Your task to perform on an android device: turn on priority inbox in the gmail app Image 0: 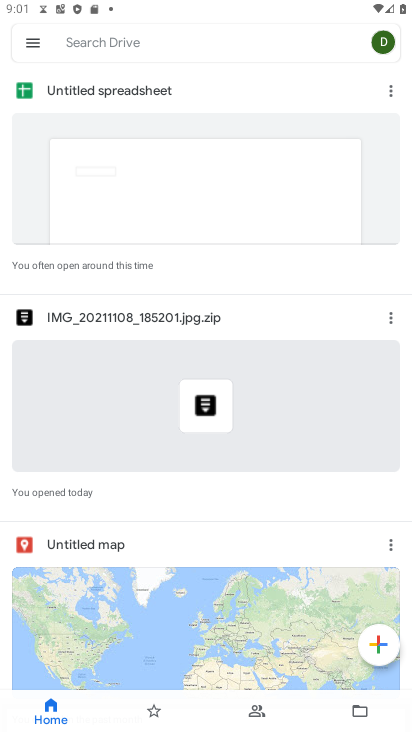
Step 0: press back button
Your task to perform on an android device: turn on priority inbox in the gmail app Image 1: 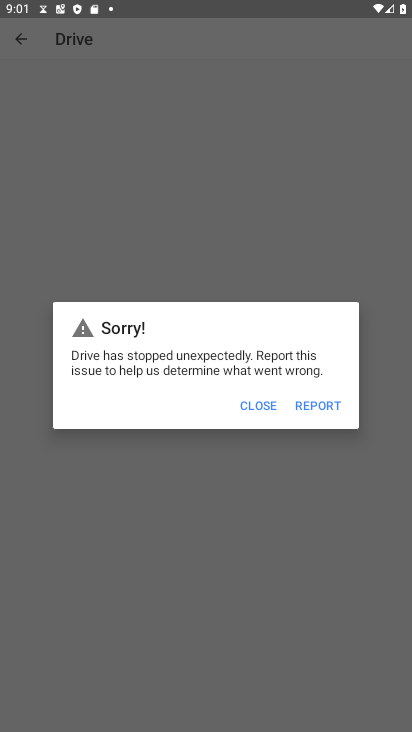
Step 1: press home button
Your task to perform on an android device: turn on priority inbox in the gmail app Image 2: 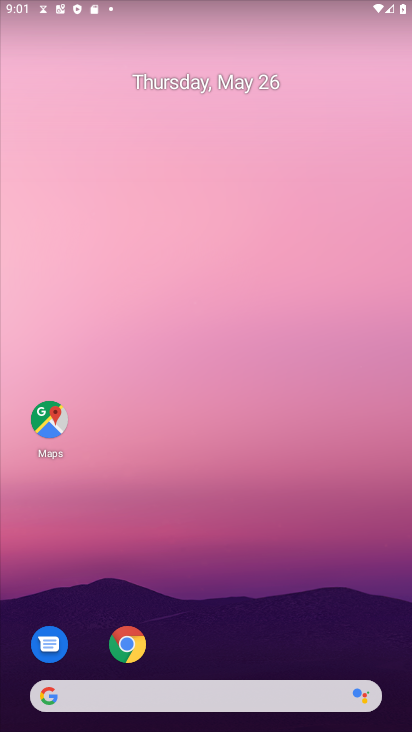
Step 2: drag from (192, 614) to (281, 34)
Your task to perform on an android device: turn on priority inbox in the gmail app Image 3: 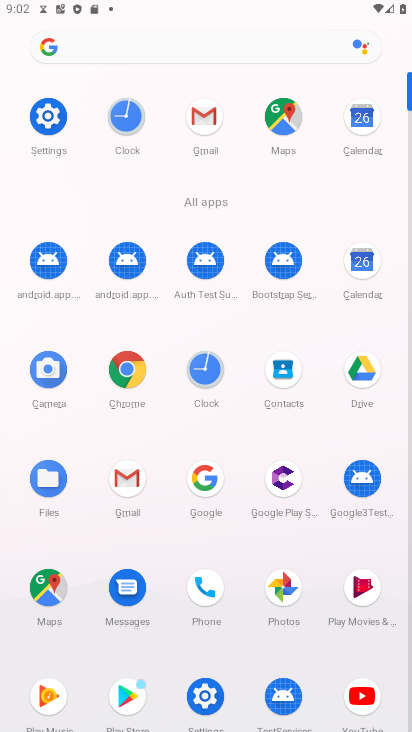
Step 3: click (203, 119)
Your task to perform on an android device: turn on priority inbox in the gmail app Image 4: 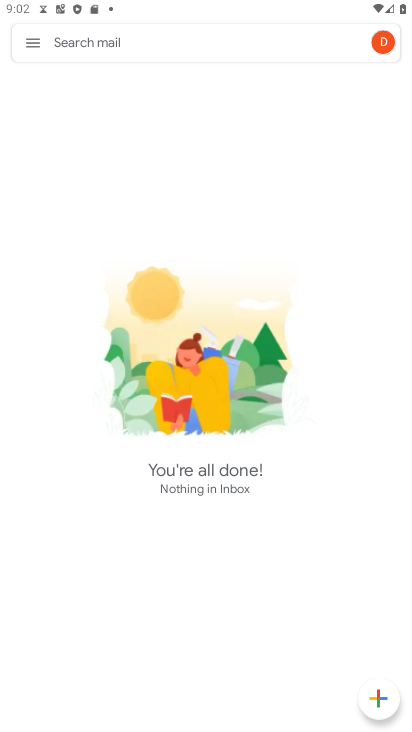
Step 4: click (34, 36)
Your task to perform on an android device: turn on priority inbox in the gmail app Image 5: 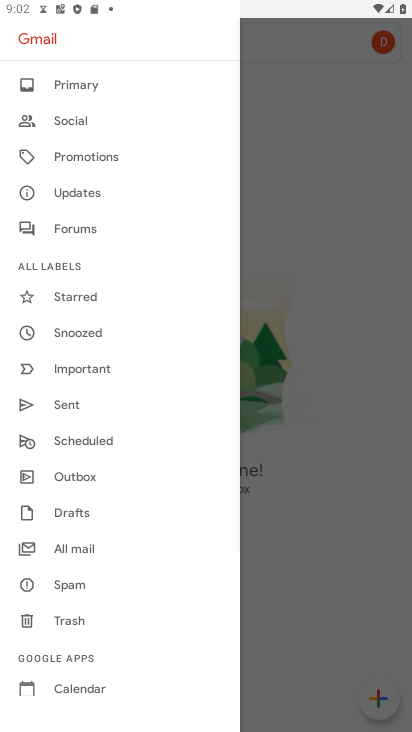
Step 5: drag from (98, 616) to (151, 175)
Your task to perform on an android device: turn on priority inbox in the gmail app Image 6: 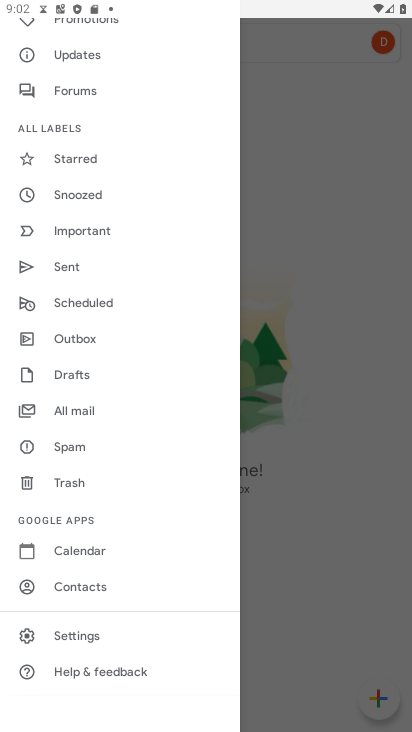
Step 6: click (82, 636)
Your task to perform on an android device: turn on priority inbox in the gmail app Image 7: 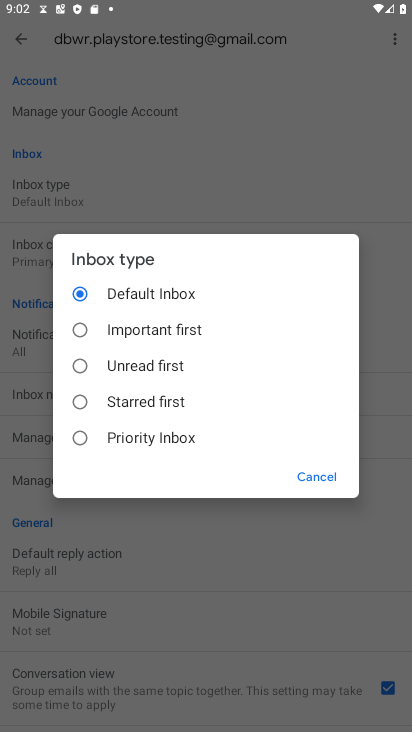
Step 7: click (80, 442)
Your task to perform on an android device: turn on priority inbox in the gmail app Image 8: 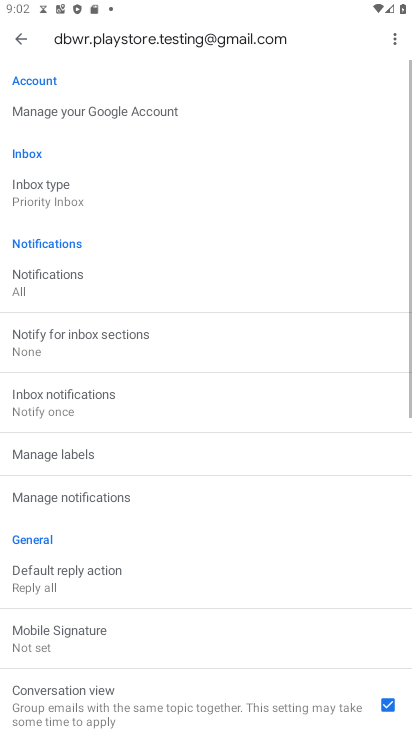
Step 8: task complete